Your task to perform on an android device: Open display settings Image 0: 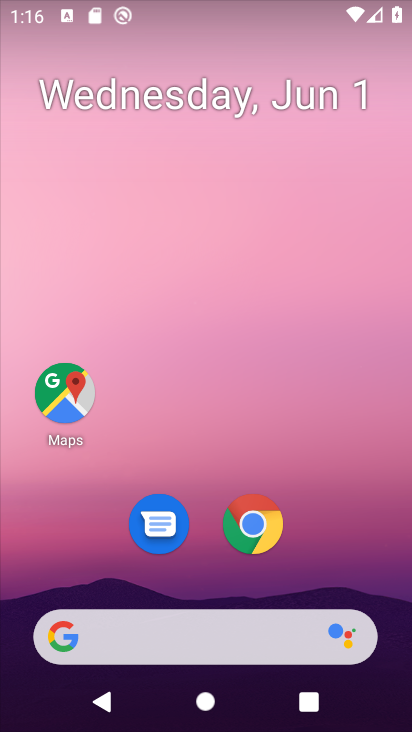
Step 0: drag from (326, 515) to (281, 10)
Your task to perform on an android device: Open display settings Image 1: 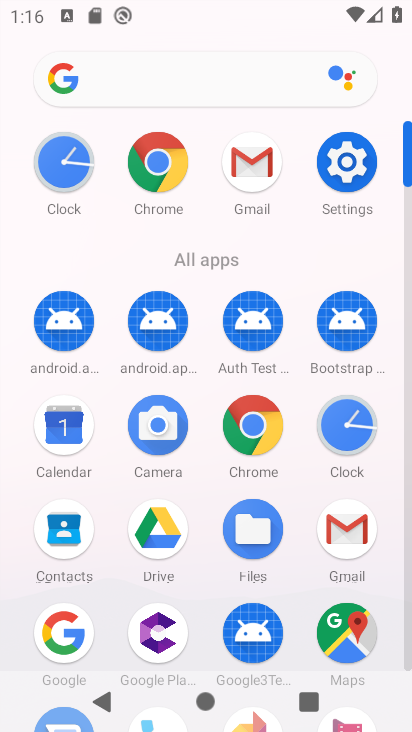
Step 1: click (352, 168)
Your task to perform on an android device: Open display settings Image 2: 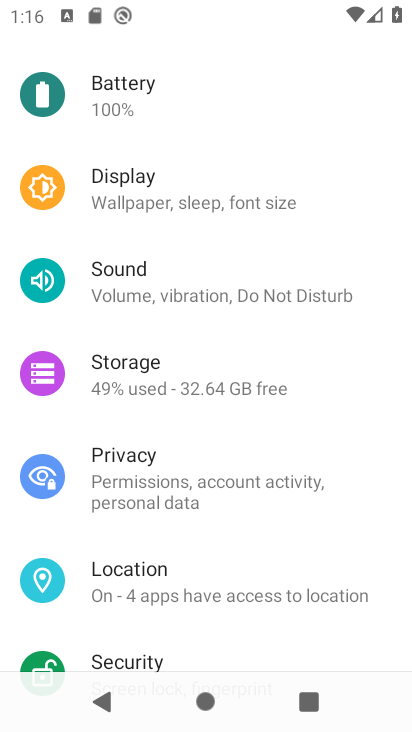
Step 2: click (210, 183)
Your task to perform on an android device: Open display settings Image 3: 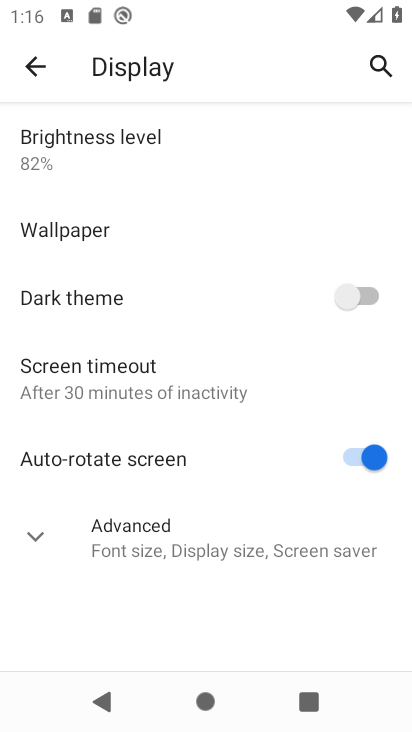
Step 3: task complete